Your task to perform on an android device: turn smart compose on in the gmail app Image 0: 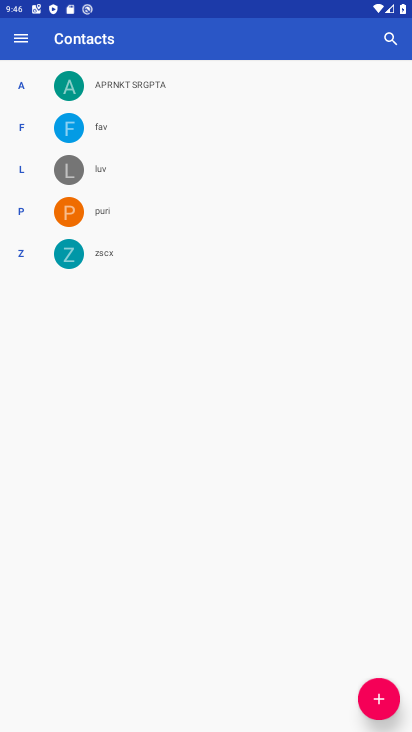
Step 0: press home button
Your task to perform on an android device: turn smart compose on in the gmail app Image 1: 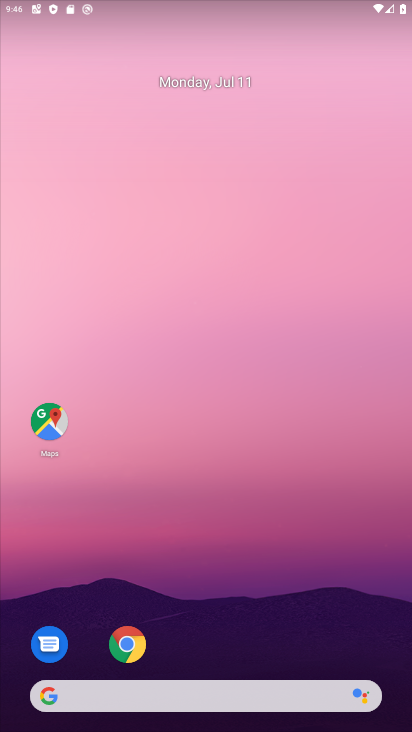
Step 1: drag from (199, 639) to (193, 146)
Your task to perform on an android device: turn smart compose on in the gmail app Image 2: 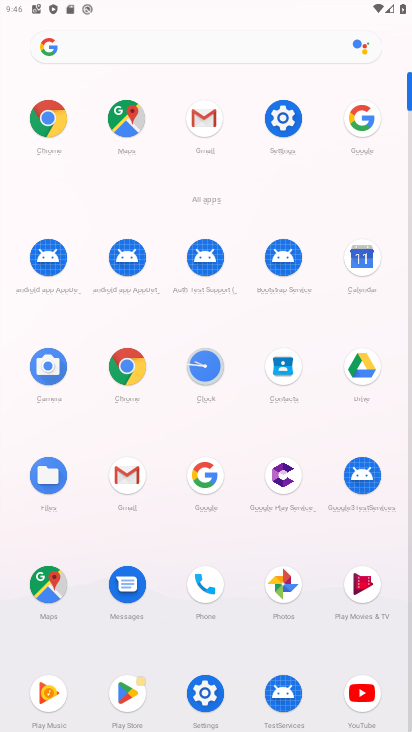
Step 2: click (211, 115)
Your task to perform on an android device: turn smart compose on in the gmail app Image 3: 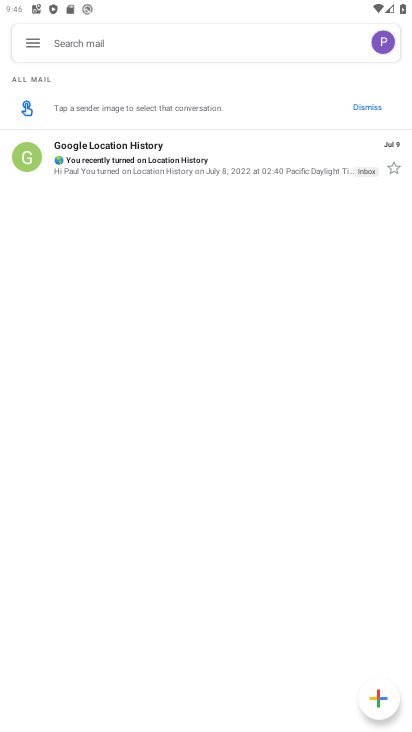
Step 3: click (33, 42)
Your task to perform on an android device: turn smart compose on in the gmail app Image 4: 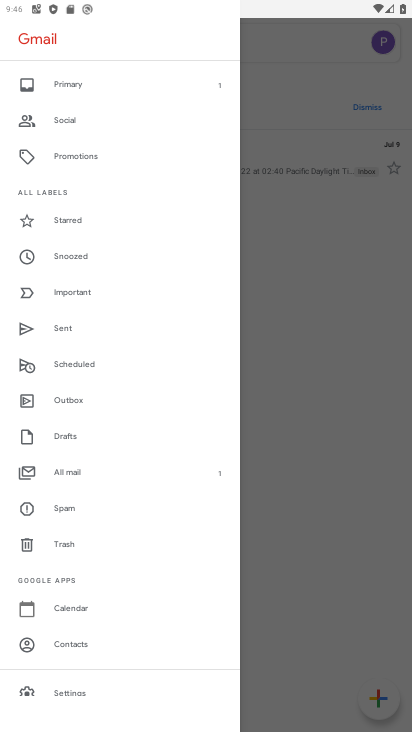
Step 4: click (69, 687)
Your task to perform on an android device: turn smart compose on in the gmail app Image 5: 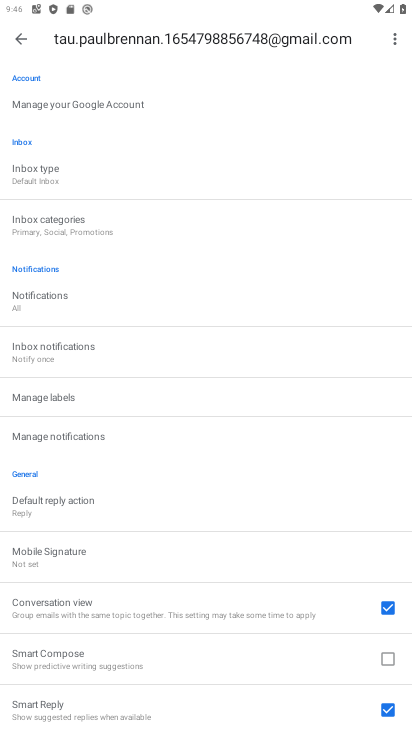
Step 5: drag from (192, 683) to (199, 489)
Your task to perform on an android device: turn smart compose on in the gmail app Image 6: 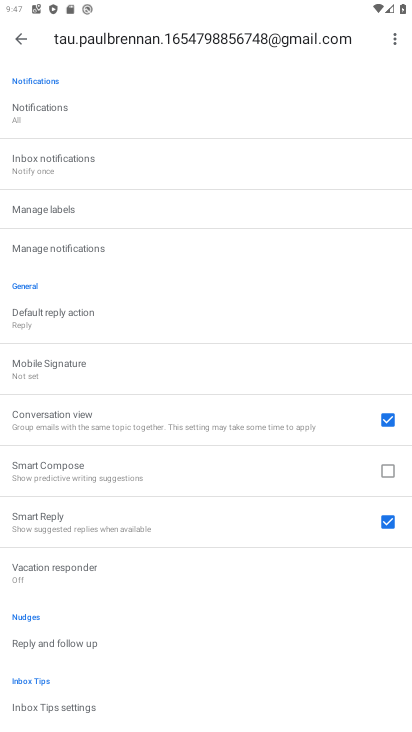
Step 6: click (388, 469)
Your task to perform on an android device: turn smart compose on in the gmail app Image 7: 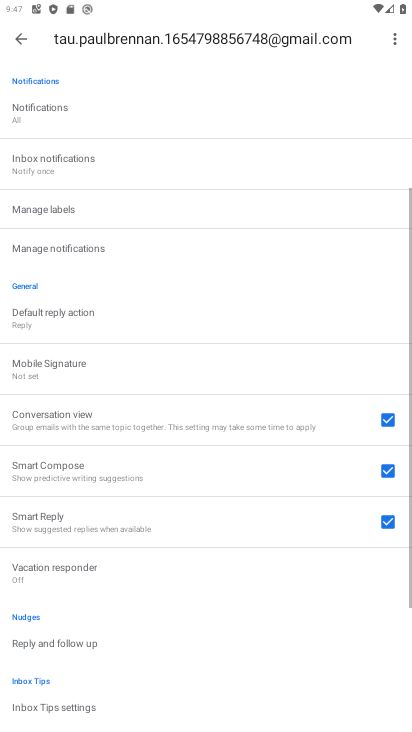
Step 7: task complete